Your task to perform on an android device: change timer sound Image 0: 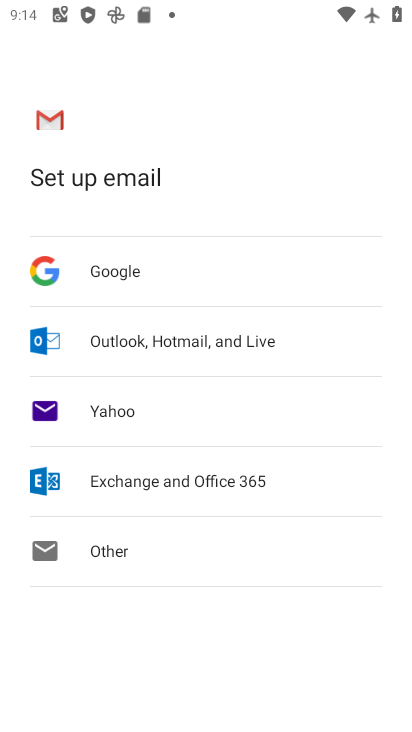
Step 0: press back button
Your task to perform on an android device: change timer sound Image 1: 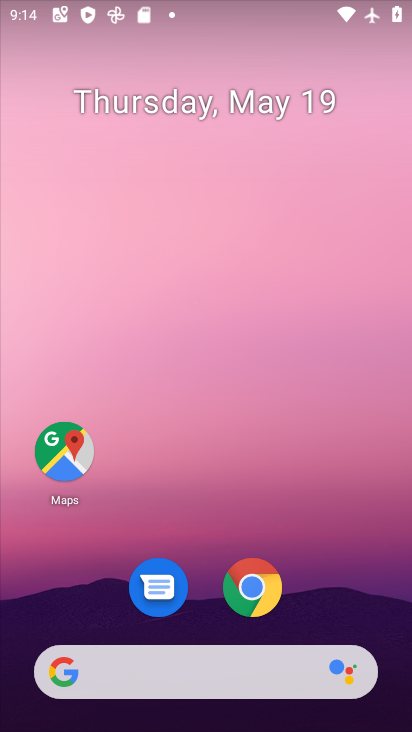
Step 1: drag from (363, 573) to (287, 32)
Your task to perform on an android device: change timer sound Image 2: 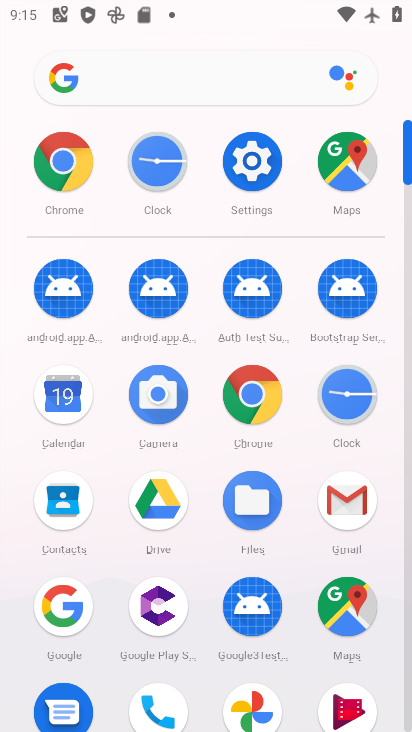
Step 2: click (346, 389)
Your task to perform on an android device: change timer sound Image 3: 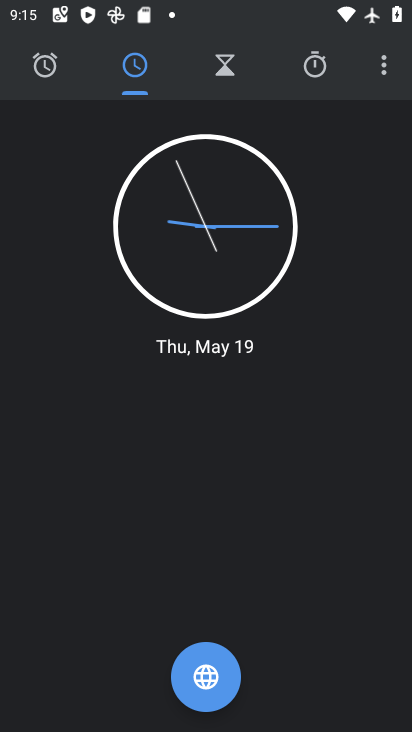
Step 3: drag from (388, 62) to (210, 122)
Your task to perform on an android device: change timer sound Image 4: 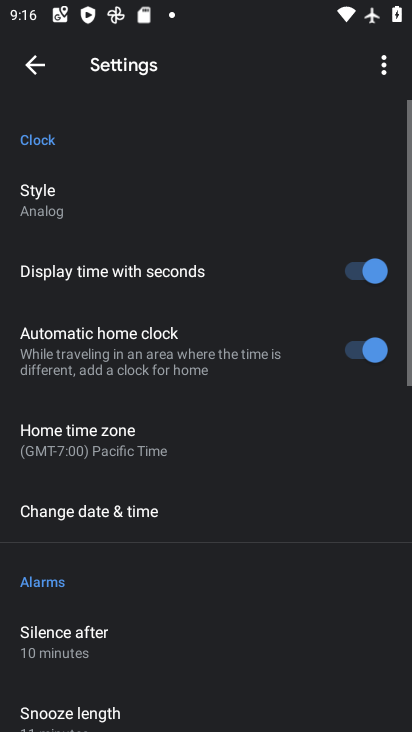
Step 4: drag from (228, 562) to (242, 132)
Your task to perform on an android device: change timer sound Image 5: 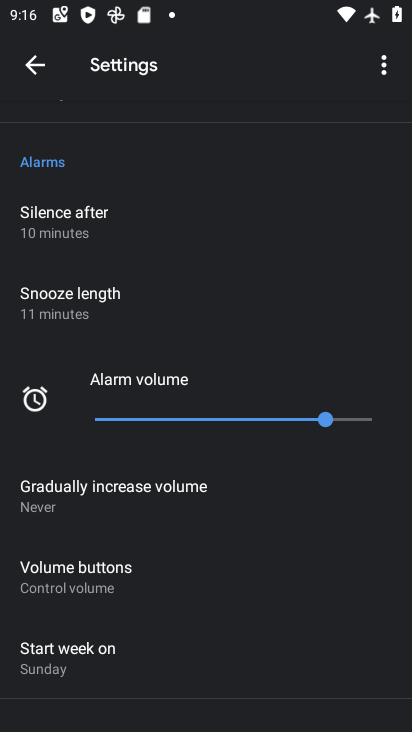
Step 5: drag from (263, 573) to (261, 157)
Your task to perform on an android device: change timer sound Image 6: 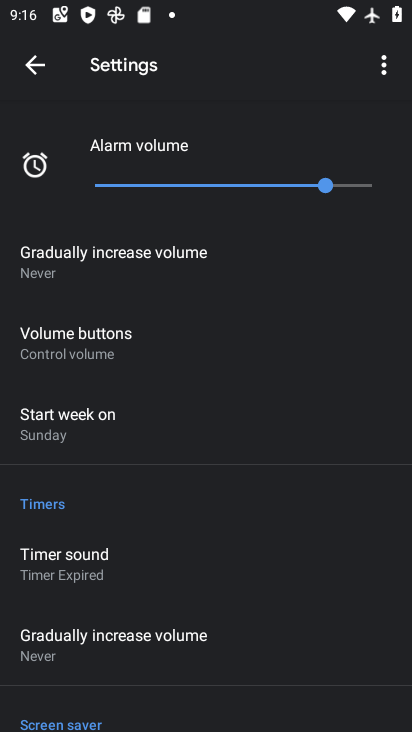
Step 6: click (107, 580)
Your task to perform on an android device: change timer sound Image 7: 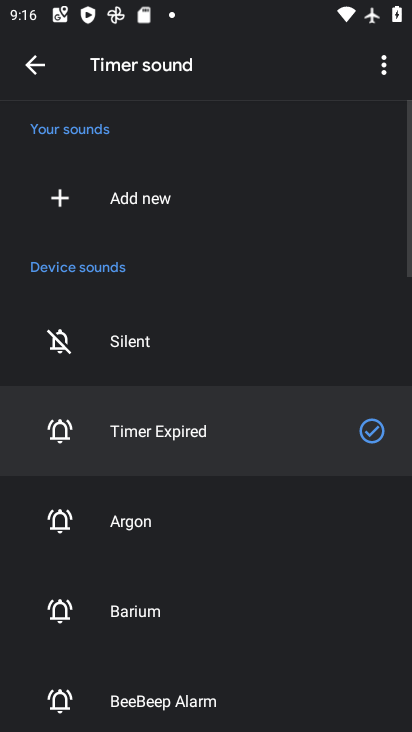
Step 7: click (154, 528)
Your task to perform on an android device: change timer sound Image 8: 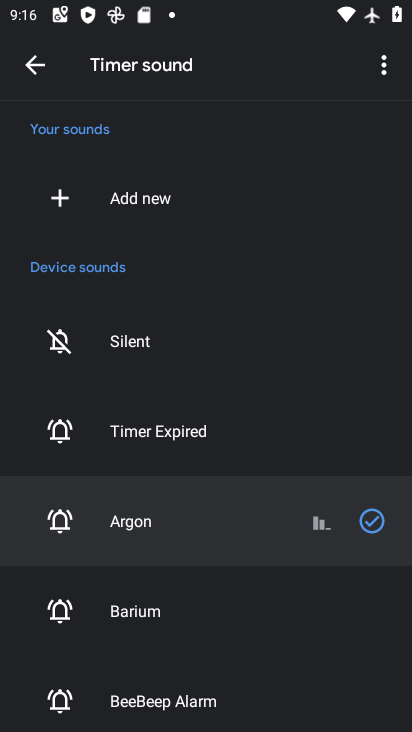
Step 8: task complete